Your task to perform on an android device: Go to Yahoo.com Image 0: 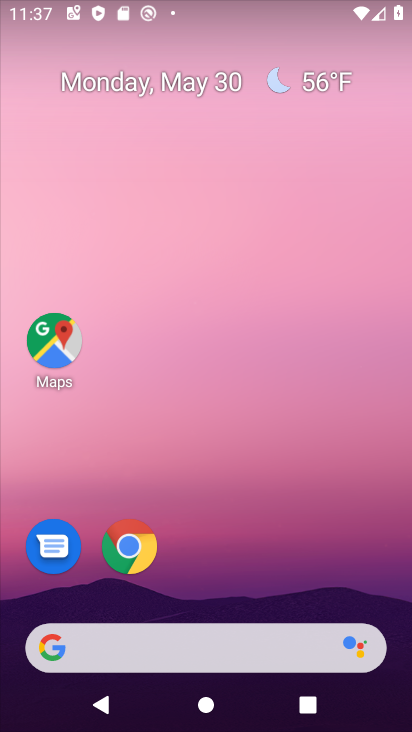
Step 0: click (130, 546)
Your task to perform on an android device: Go to Yahoo.com Image 1: 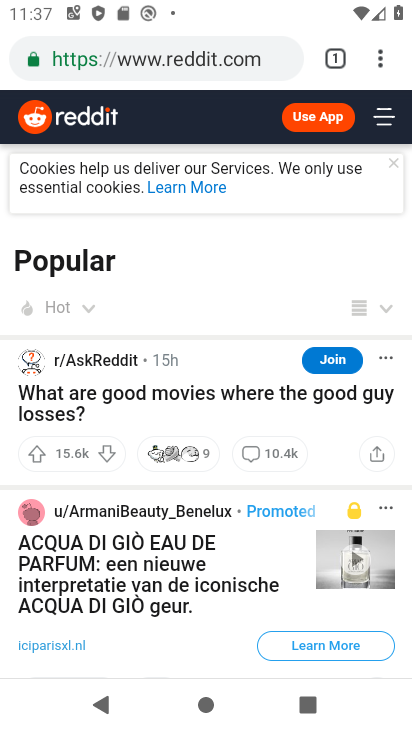
Step 1: click (269, 57)
Your task to perform on an android device: Go to Yahoo.com Image 2: 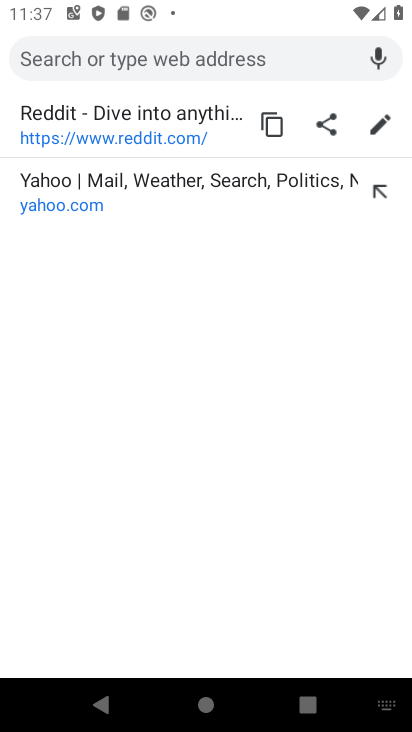
Step 2: type "Yahoo.com"
Your task to perform on an android device: Go to Yahoo.com Image 3: 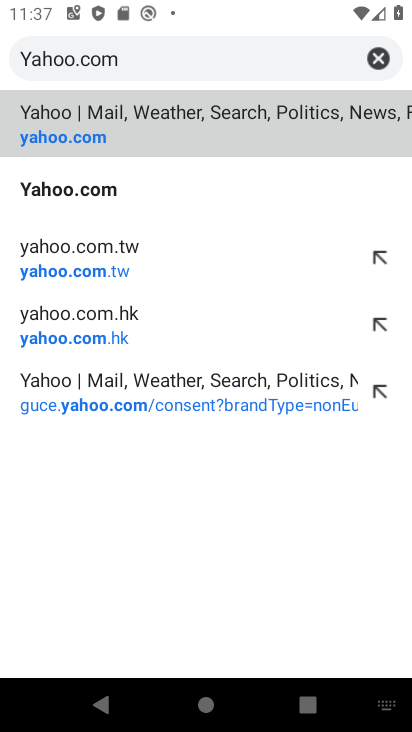
Step 3: click (64, 200)
Your task to perform on an android device: Go to Yahoo.com Image 4: 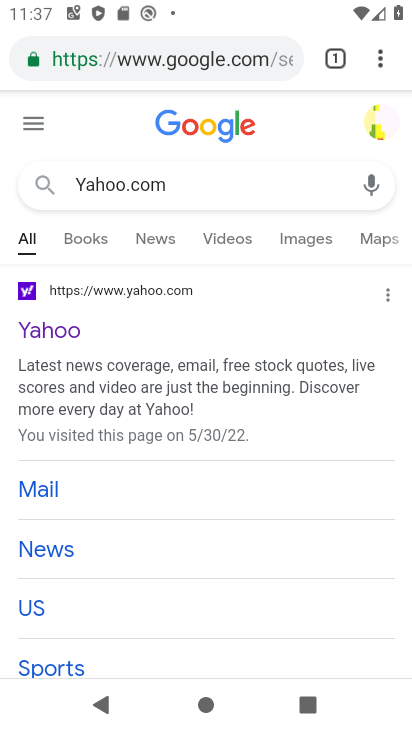
Step 4: click (54, 340)
Your task to perform on an android device: Go to Yahoo.com Image 5: 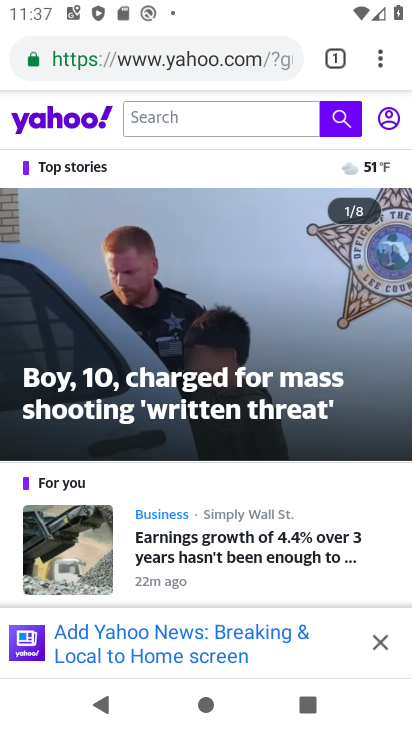
Step 5: task complete